Your task to perform on an android device: search for starred emails in the gmail app Image 0: 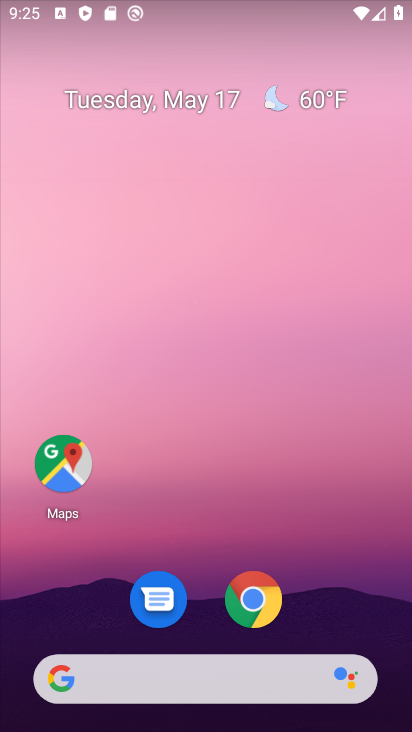
Step 0: click (402, 401)
Your task to perform on an android device: search for starred emails in the gmail app Image 1: 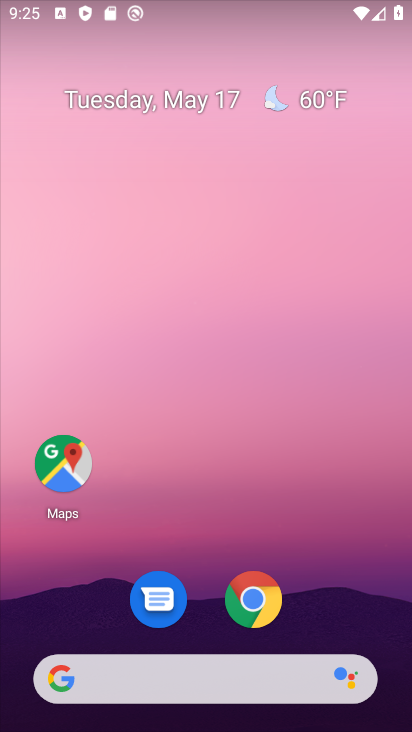
Step 1: click (355, 319)
Your task to perform on an android device: search for starred emails in the gmail app Image 2: 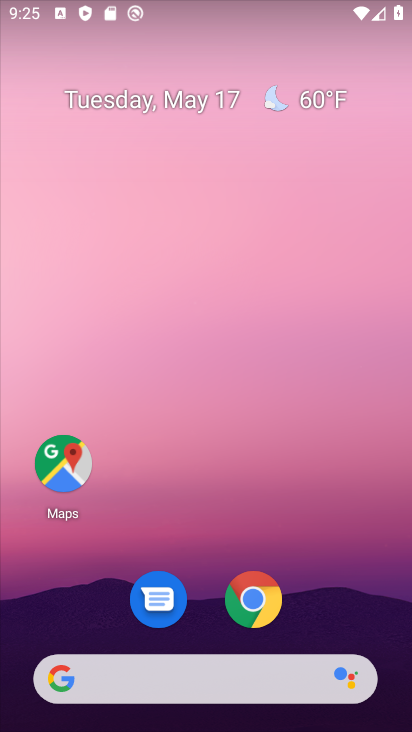
Step 2: drag from (398, 681) to (397, 338)
Your task to perform on an android device: search for starred emails in the gmail app Image 3: 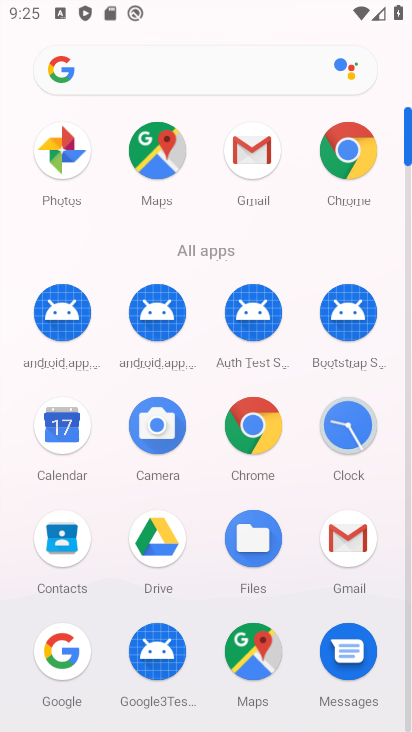
Step 3: click (242, 157)
Your task to perform on an android device: search for starred emails in the gmail app Image 4: 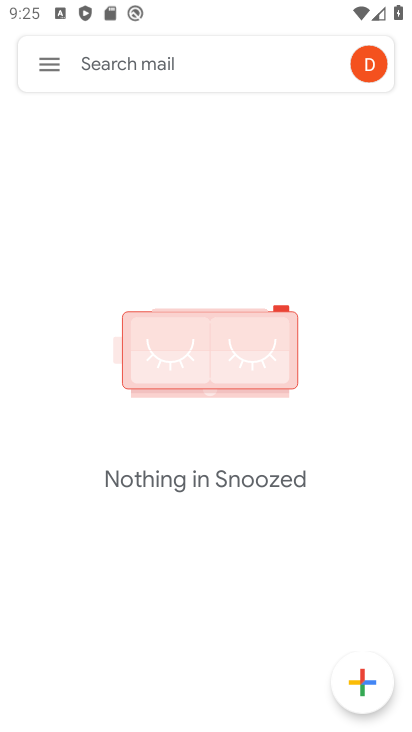
Step 4: click (44, 62)
Your task to perform on an android device: search for starred emails in the gmail app Image 5: 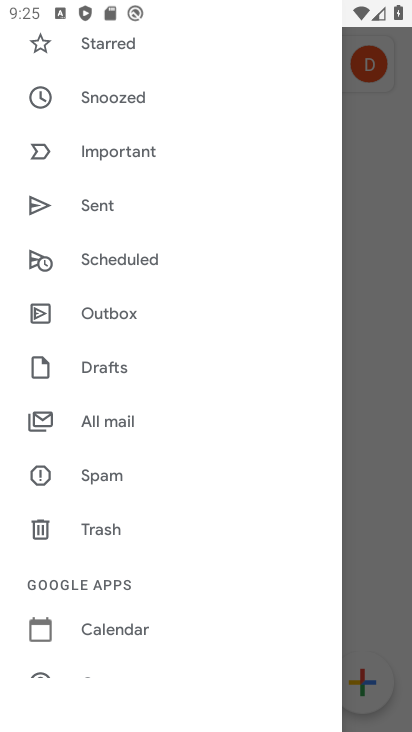
Step 5: drag from (249, 289) to (240, 469)
Your task to perform on an android device: search for starred emails in the gmail app Image 6: 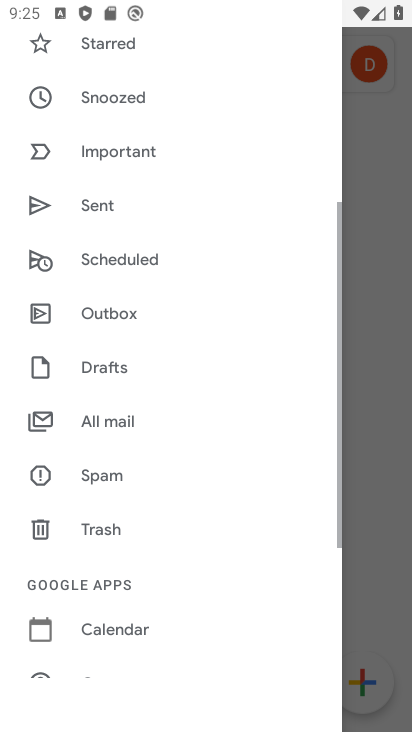
Step 6: click (108, 38)
Your task to perform on an android device: search for starred emails in the gmail app Image 7: 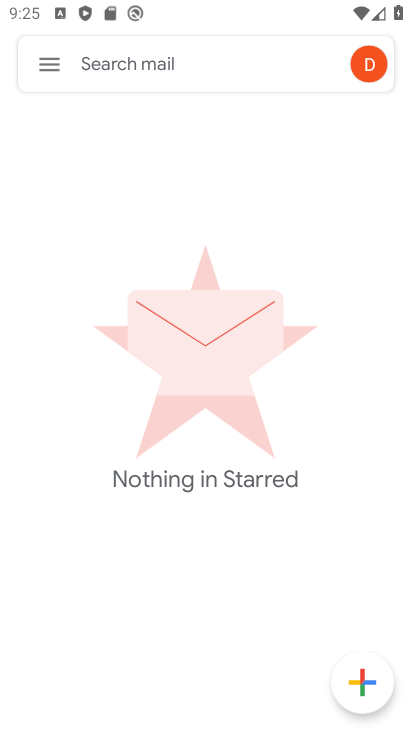
Step 7: task complete